Your task to perform on an android device: Clear the shopping cart on walmart.com. Image 0: 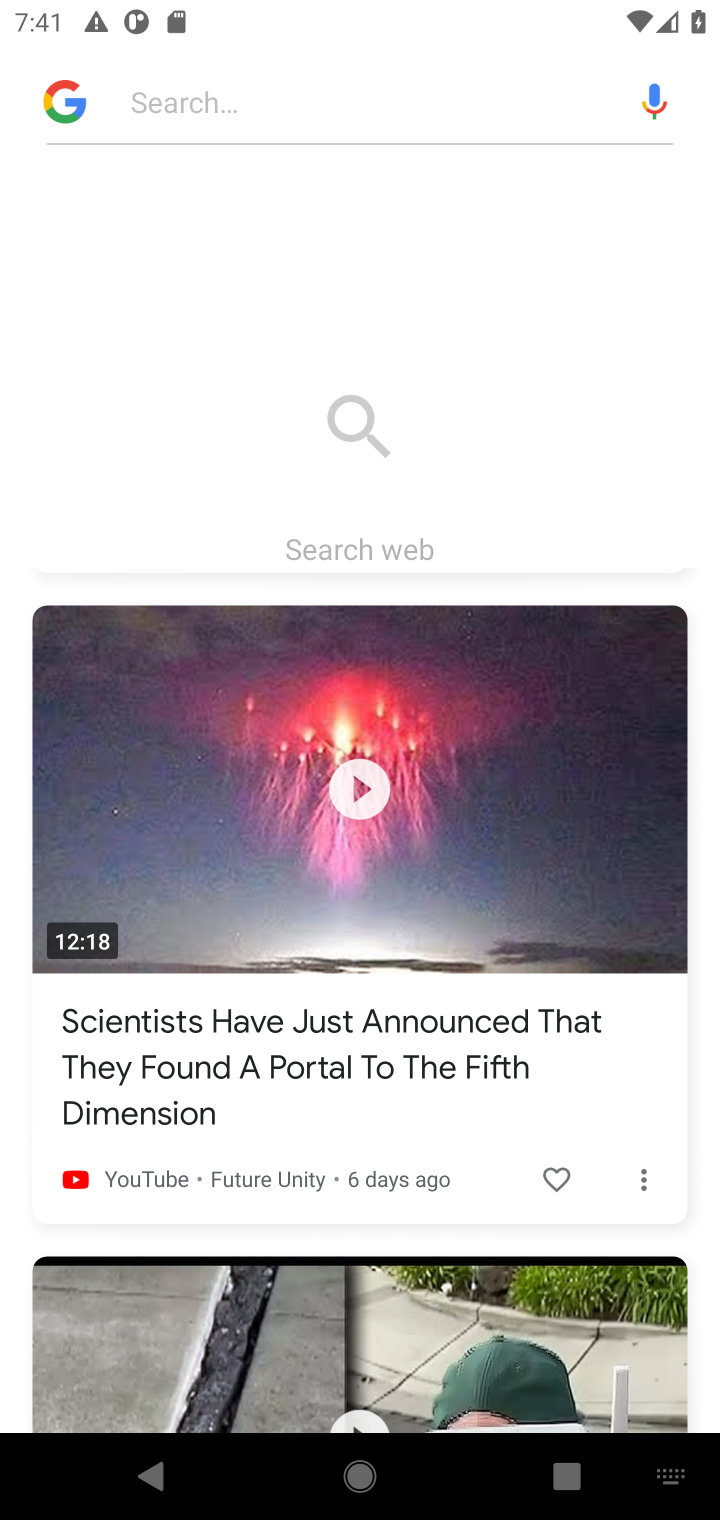
Step 0: press home button
Your task to perform on an android device: Clear the shopping cart on walmart.com. Image 1: 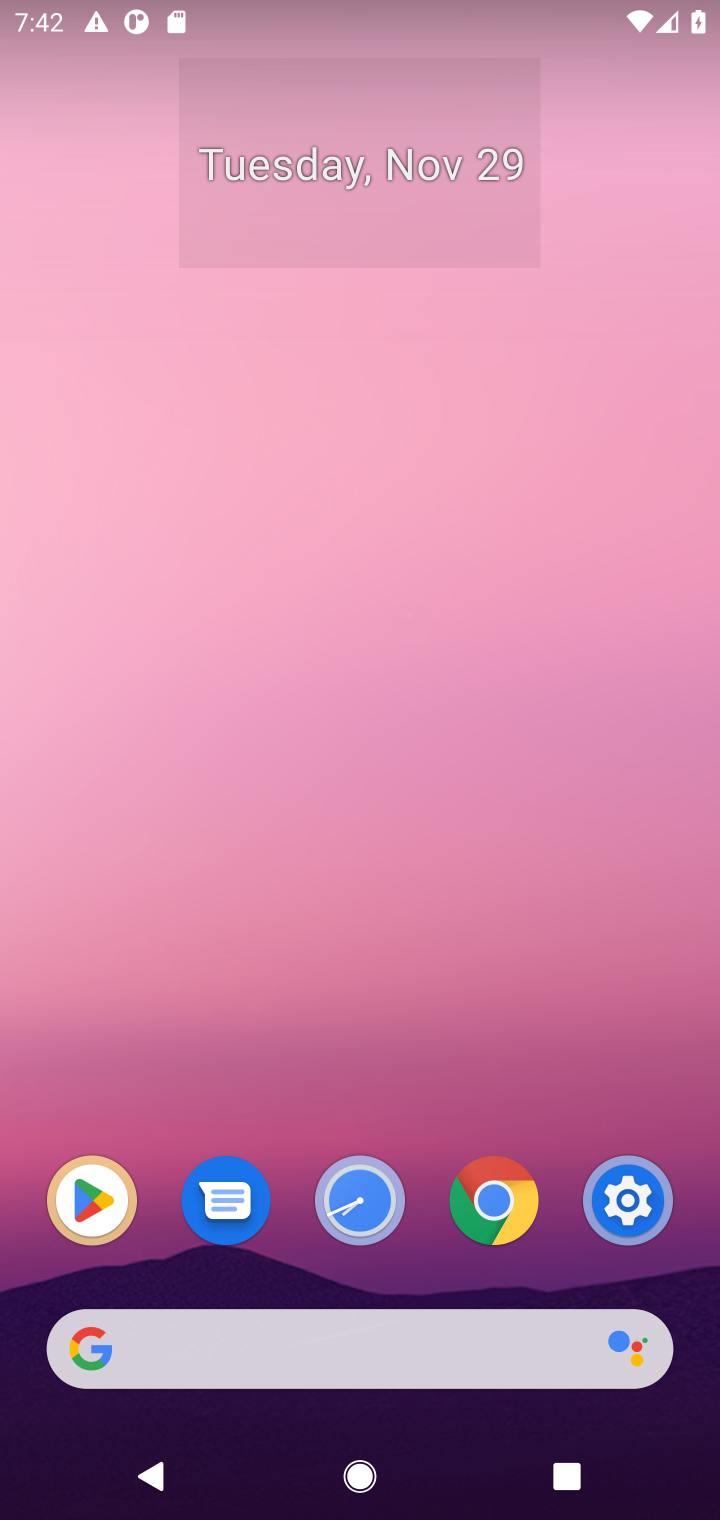
Step 1: click (264, 1334)
Your task to perform on an android device: Clear the shopping cart on walmart.com. Image 2: 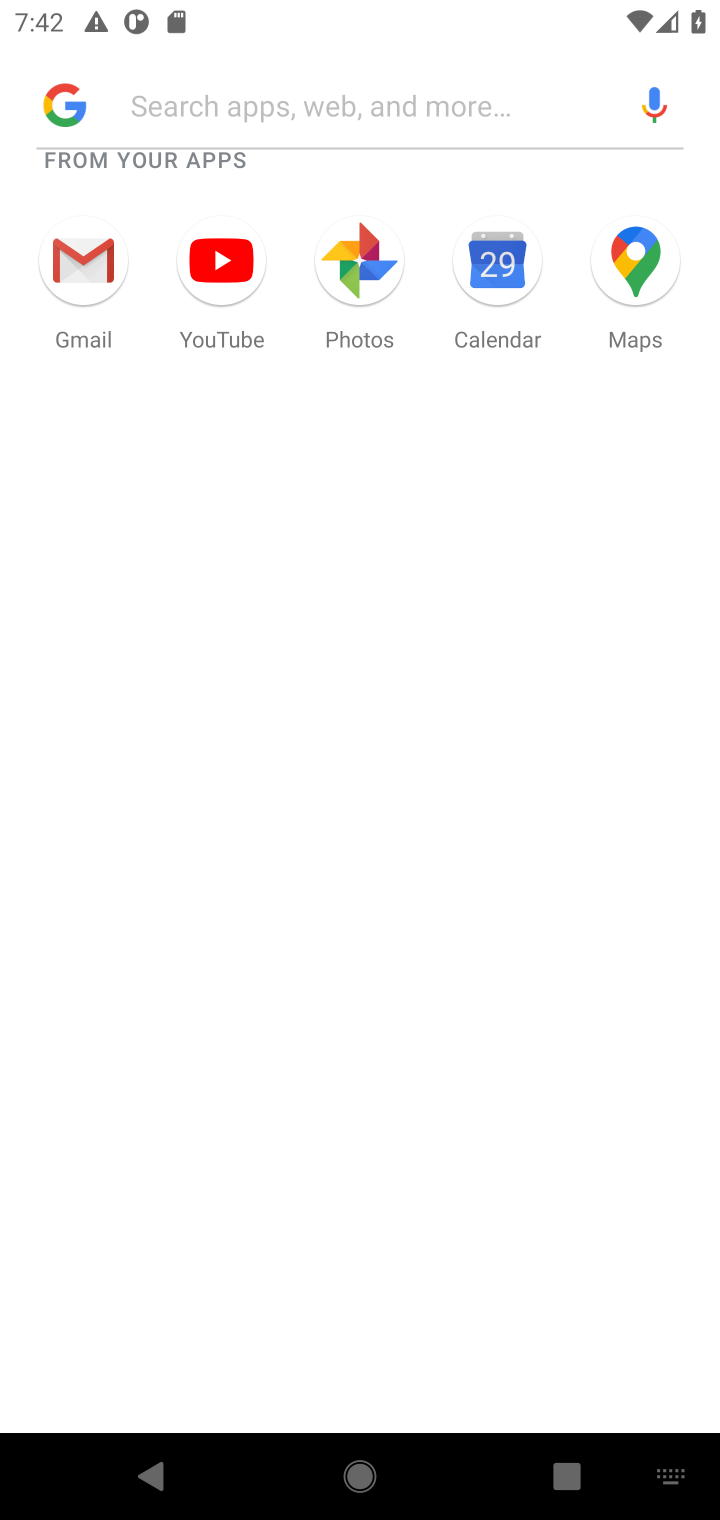
Step 2: type "walmart"
Your task to perform on an android device: Clear the shopping cart on walmart.com. Image 3: 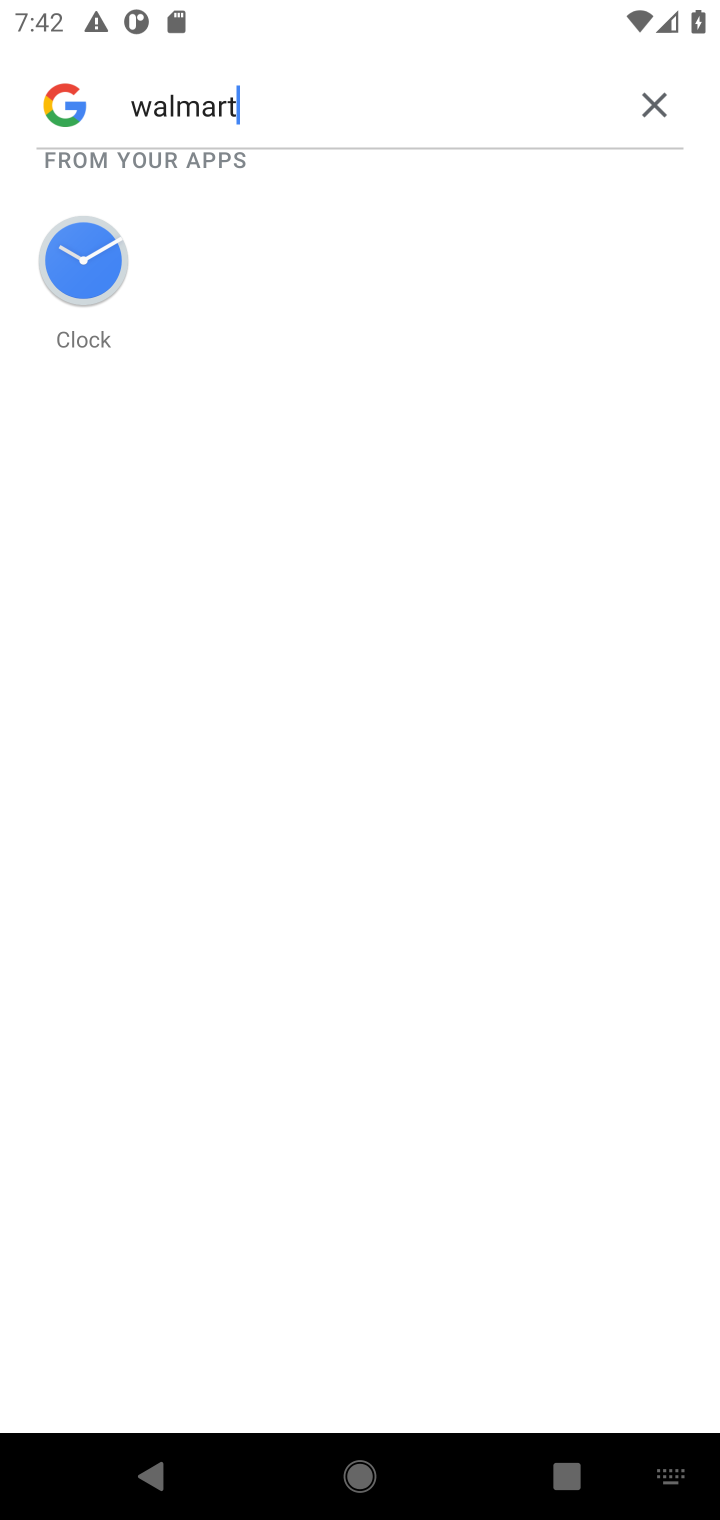
Step 3: click (650, 112)
Your task to perform on an android device: Clear the shopping cart on walmart.com. Image 4: 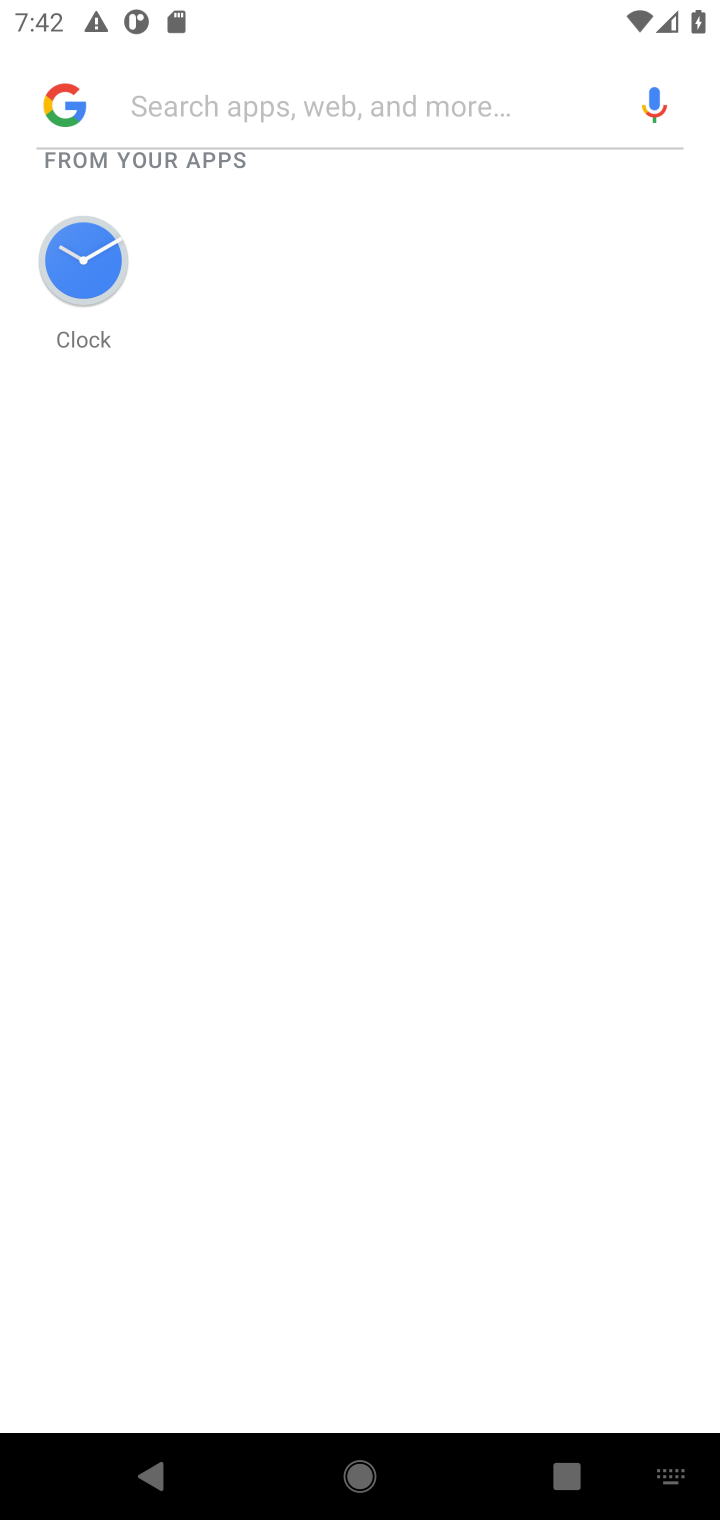
Step 4: press home button
Your task to perform on an android device: Clear the shopping cart on walmart.com. Image 5: 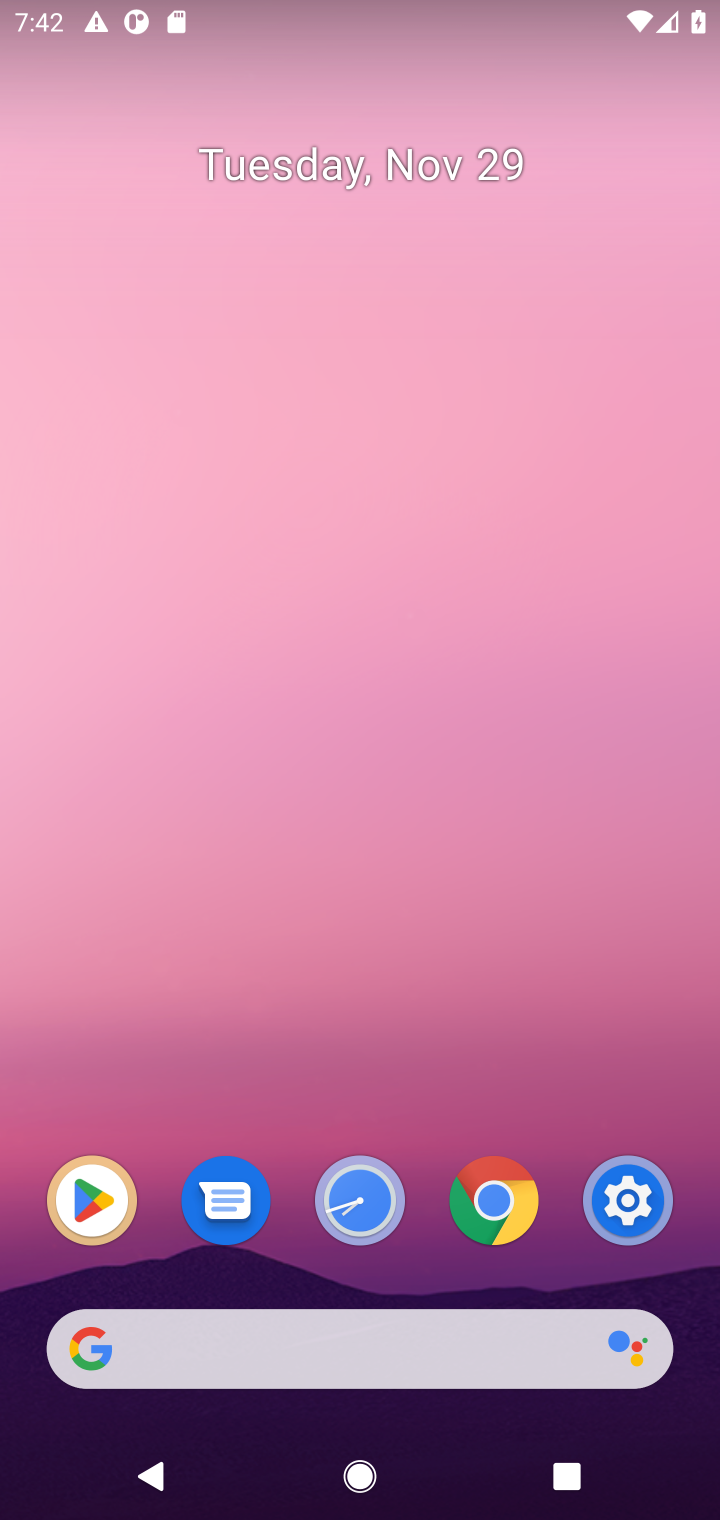
Step 5: click (239, 1316)
Your task to perform on an android device: Clear the shopping cart on walmart.com. Image 6: 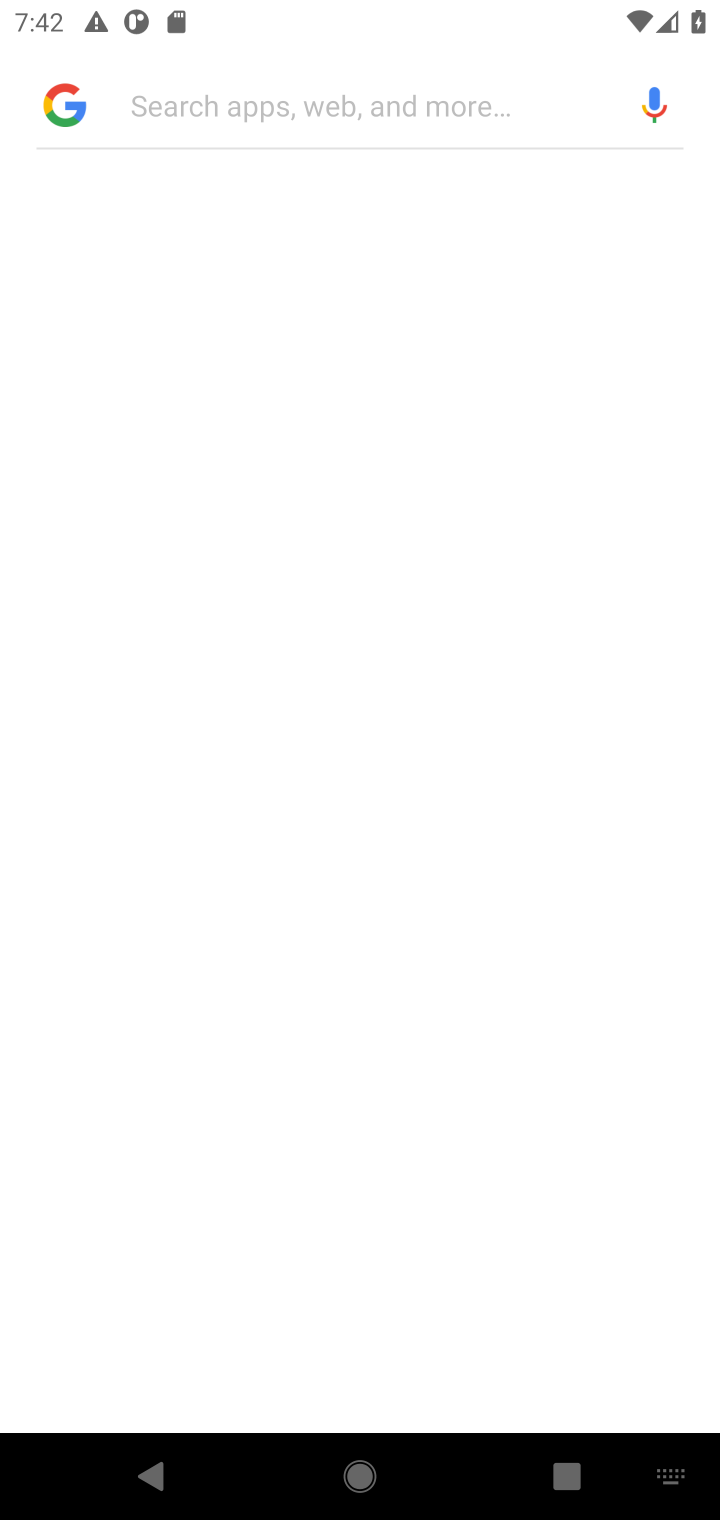
Step 6: press home button
Your task to perform on an android device: Clear the shopping cart on walmart.com. Image 7: 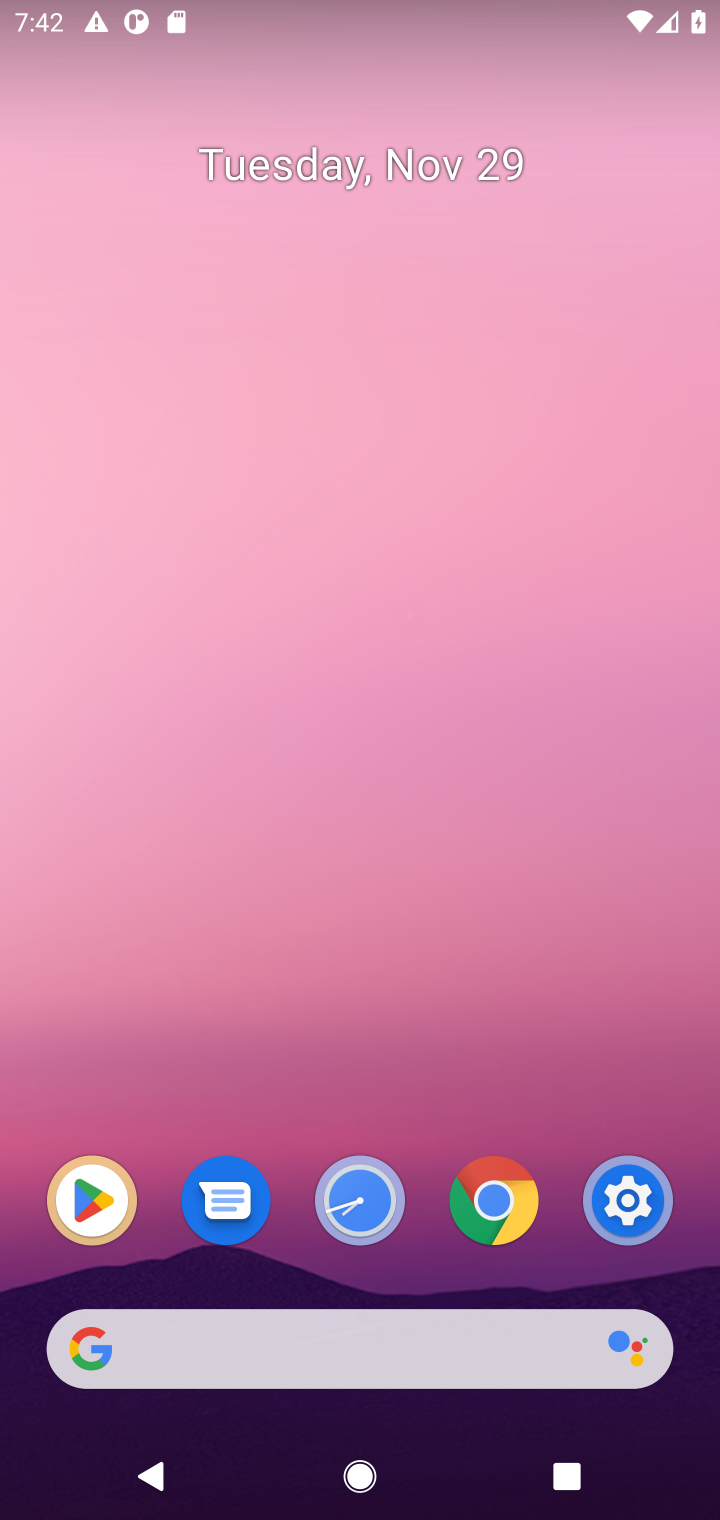
Step 7: click (504, 1233)
Your task to perform on an android device: Clear the shopping cart on walmart.com. Image 8: 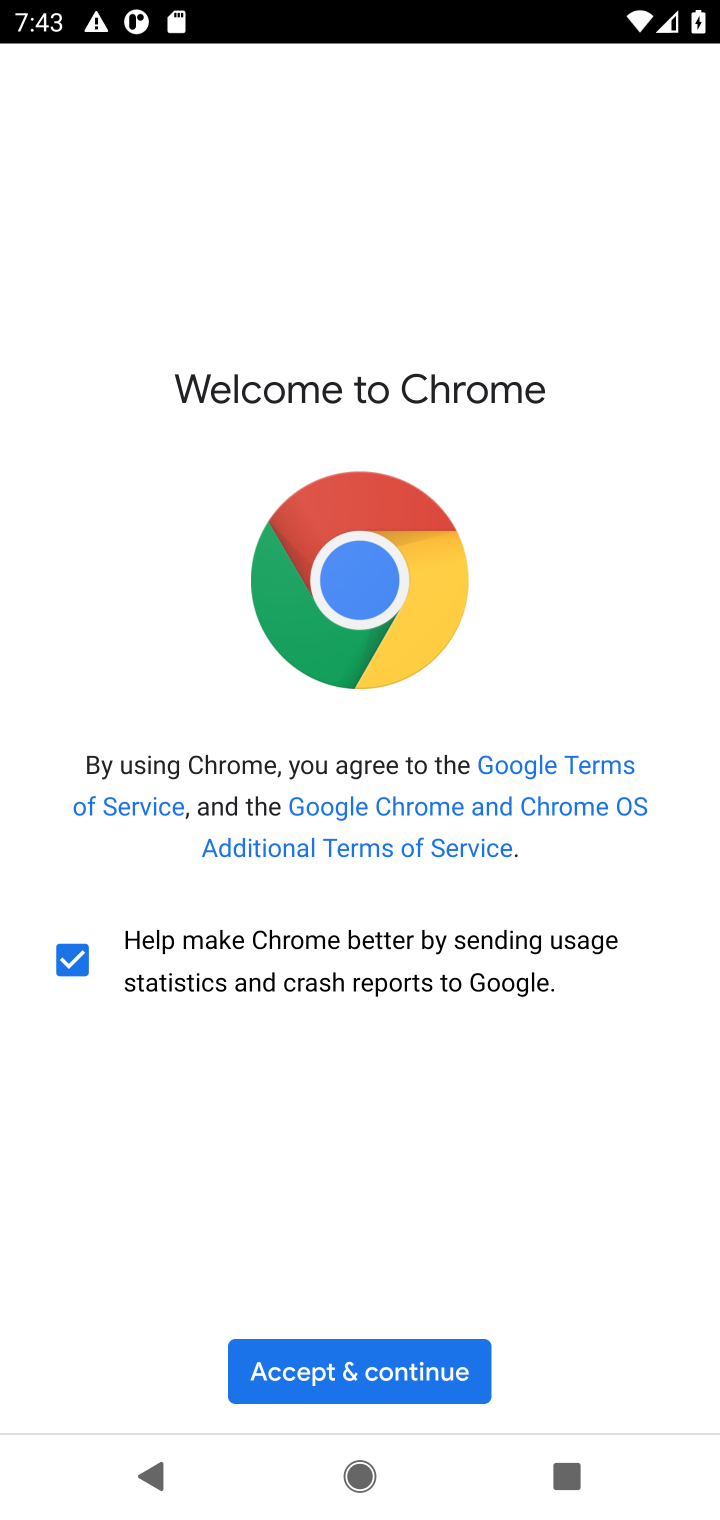
Step 8: click (328, 1386)
Your task to perform on an android device: Clear the shopping cart on walmart.com. Image 9: 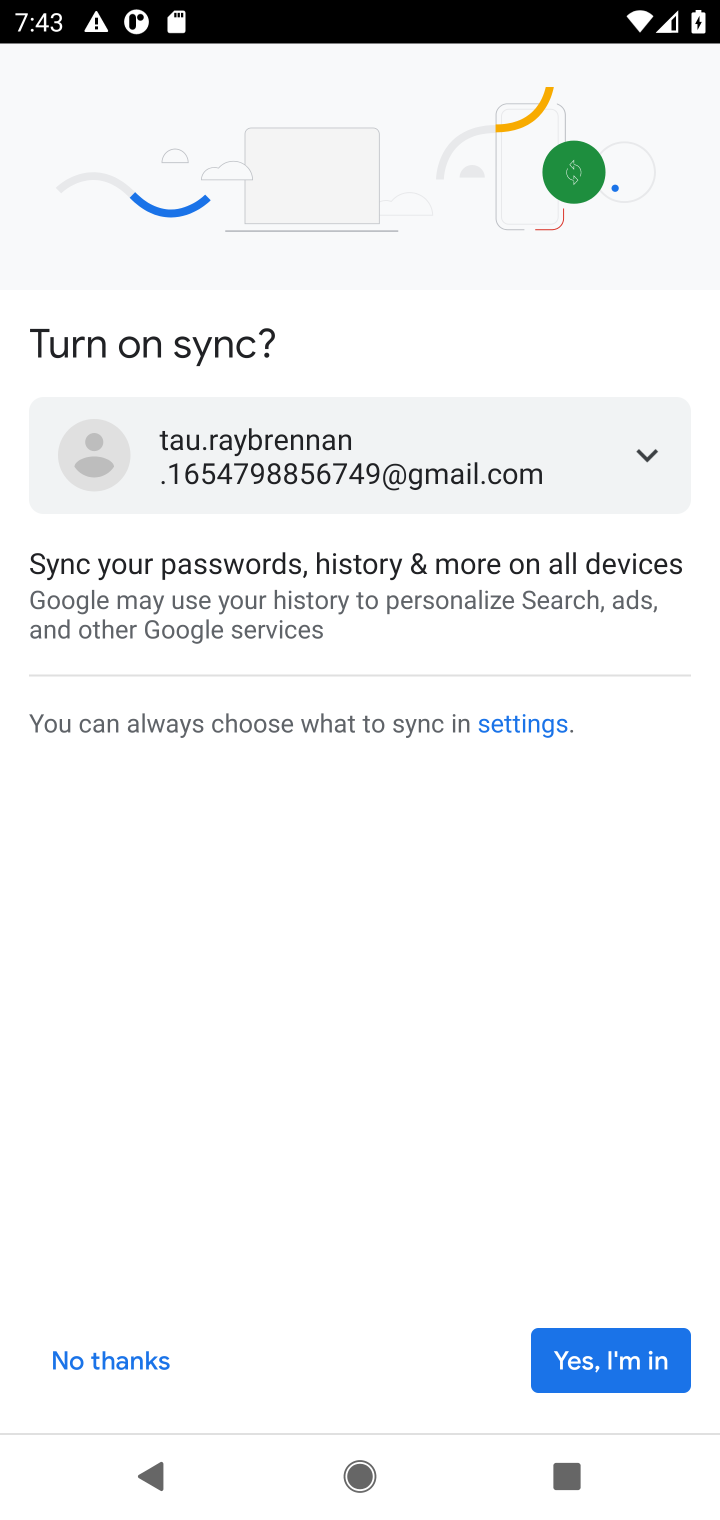
Step 9: click (544, 1356)
Your task to perform on an android device: Clear the shopping cart on walmart.com. Image 10: 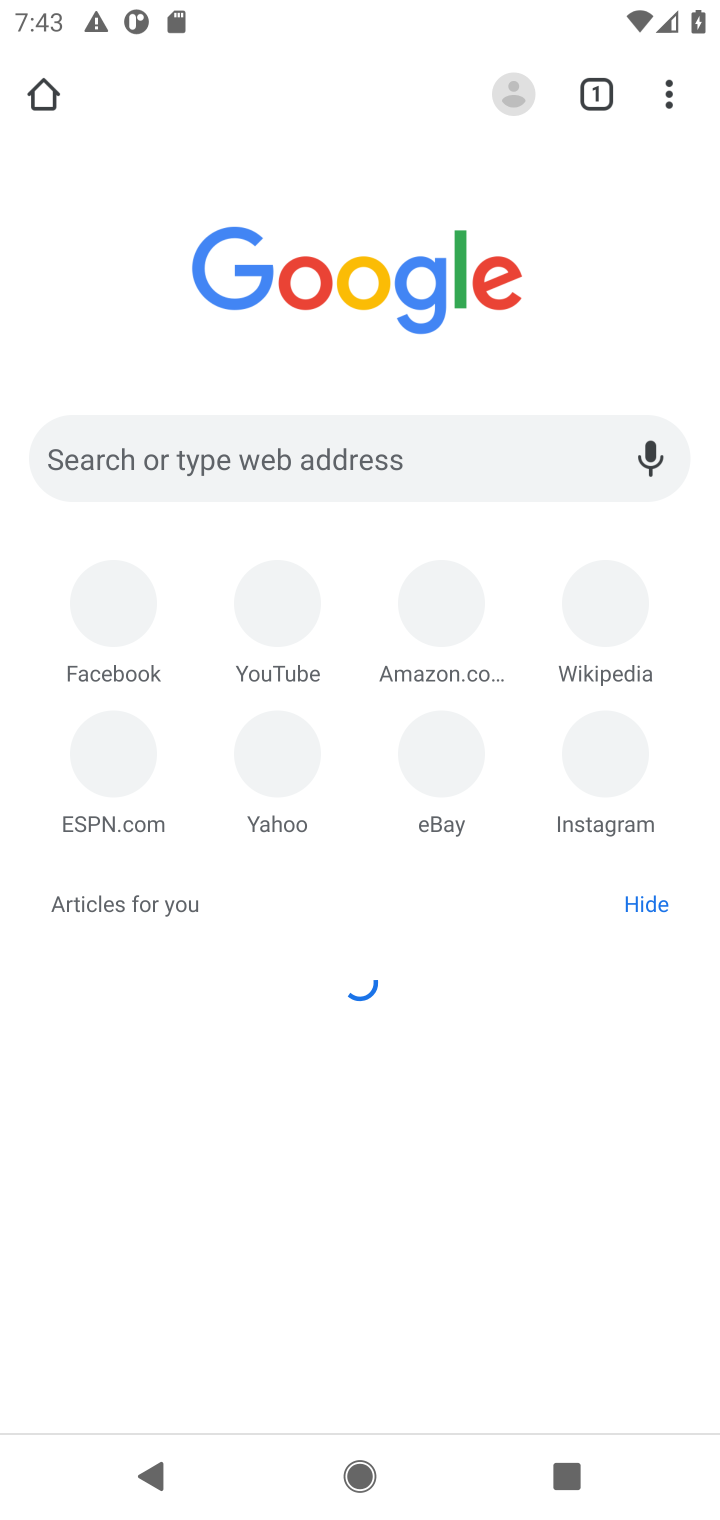
Step 10: click (312, 475)
Your task to perform on an android device: Clear the shopping cart on walmart.com. Image 11: 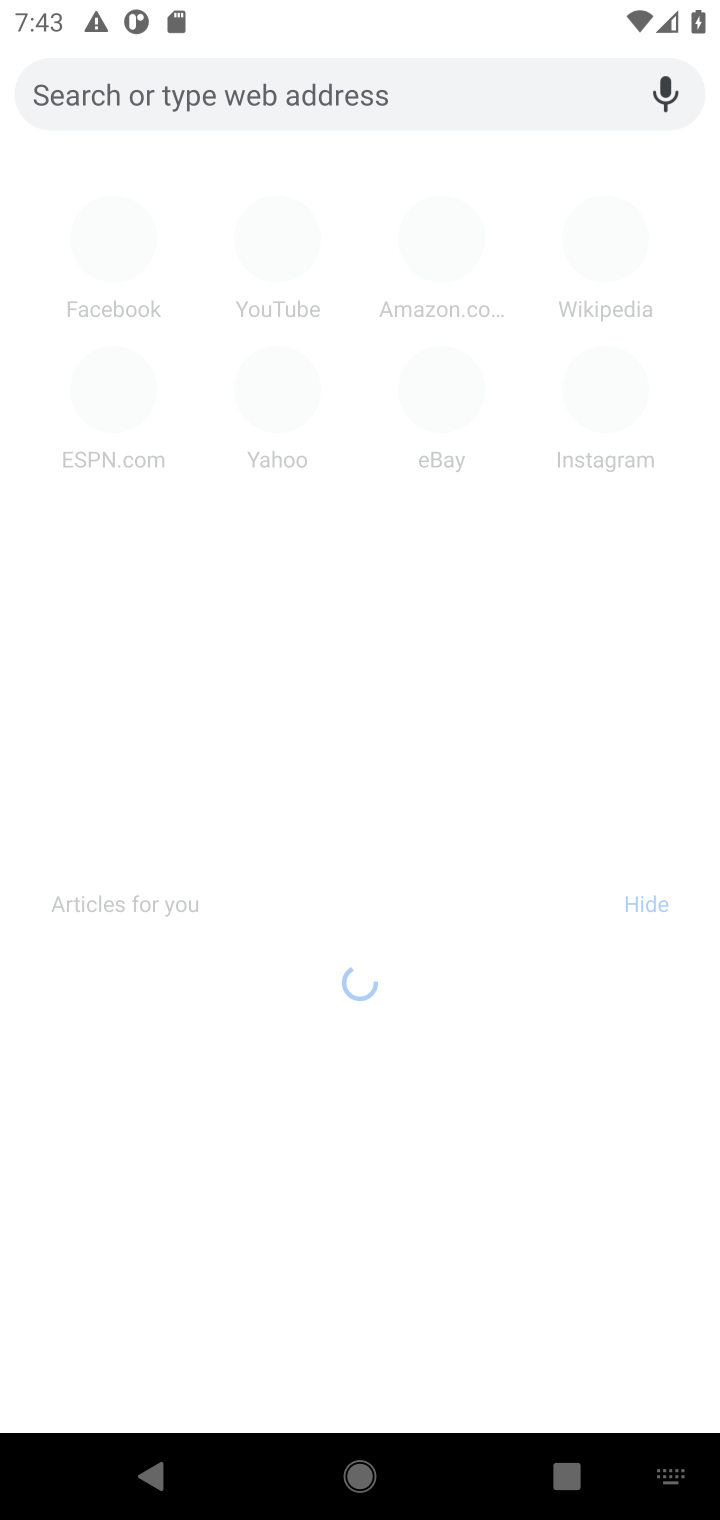
Step 11: type "walmart"
Your task to perform on an android device: Clear the shopping cart on walmart.com. Image 12: 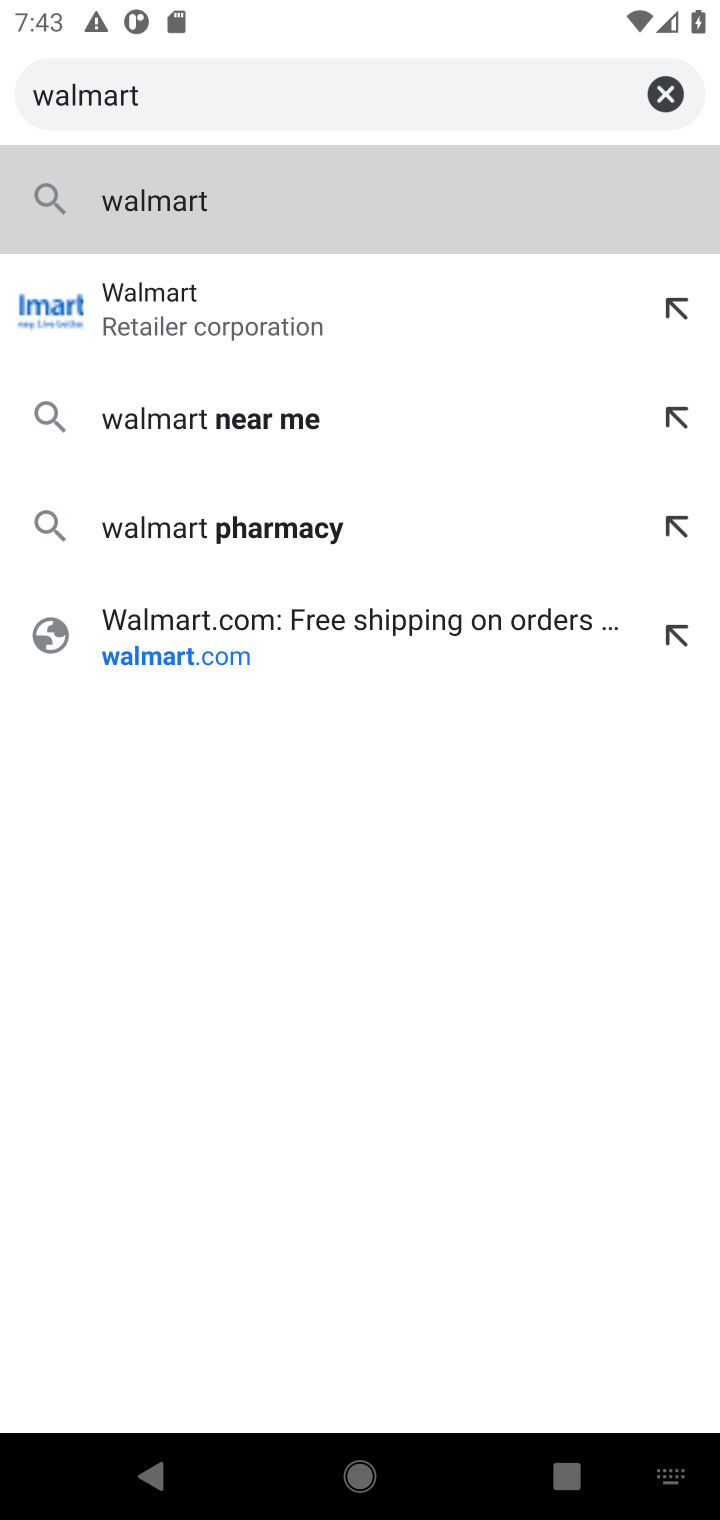
Step 12: click (382, 223)
Your task to perform on an android device: Clear the shopping cart on walmart.com. Image 13: 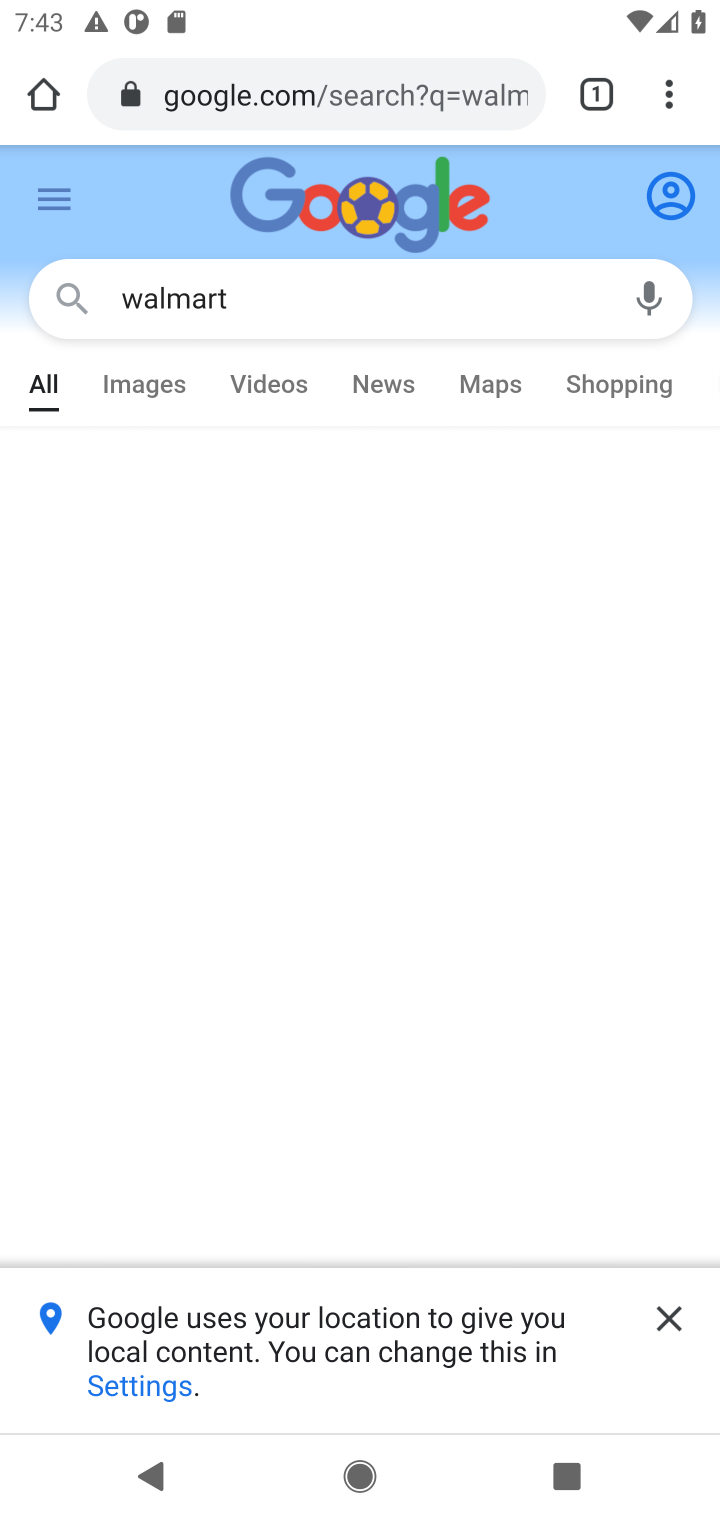
Step 13: click (676, 1339)
Your task to perform on an android device: Clear the shopping cart on walmart.com. Image 14: 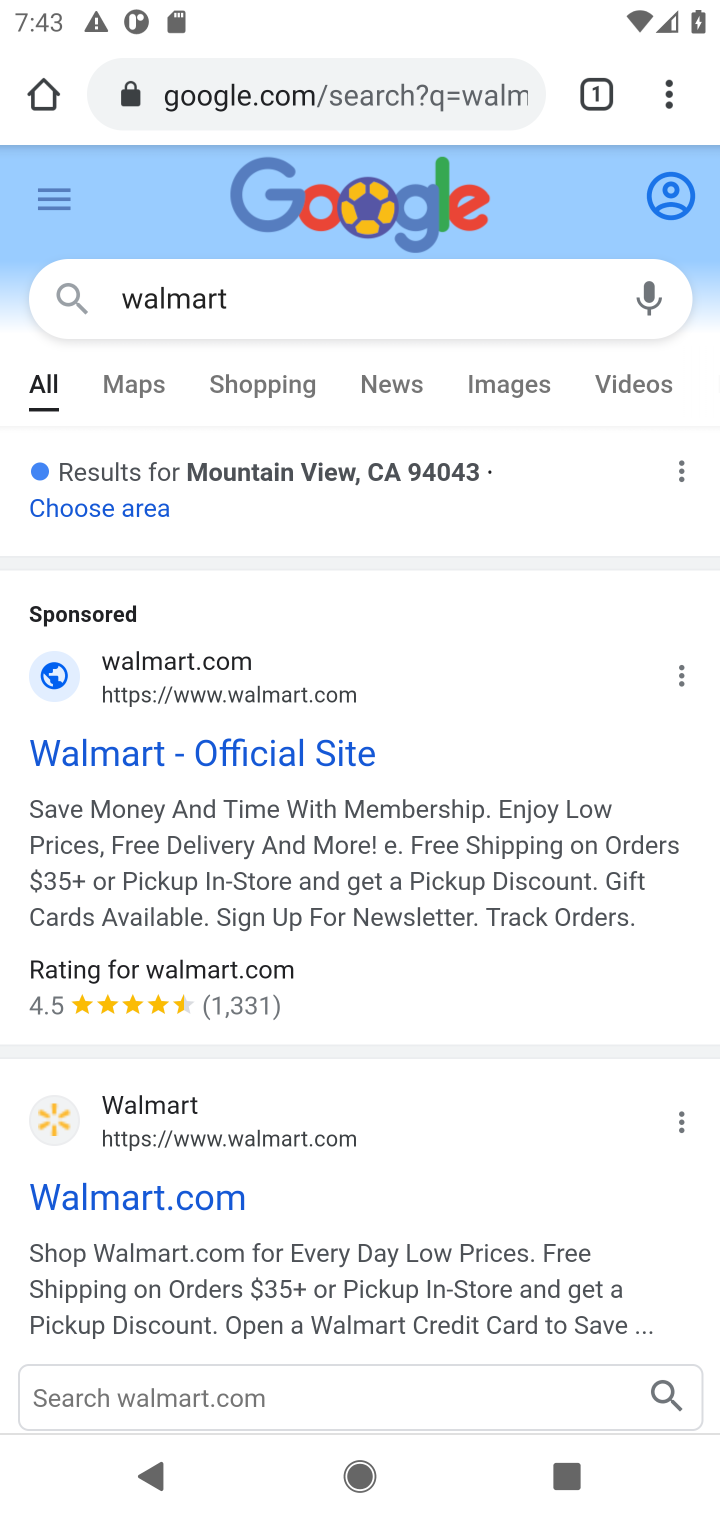
Step 14: click (248, 776)
Your task to perform on an android device: Clear the shopping cart on walmart.com. Image 15: 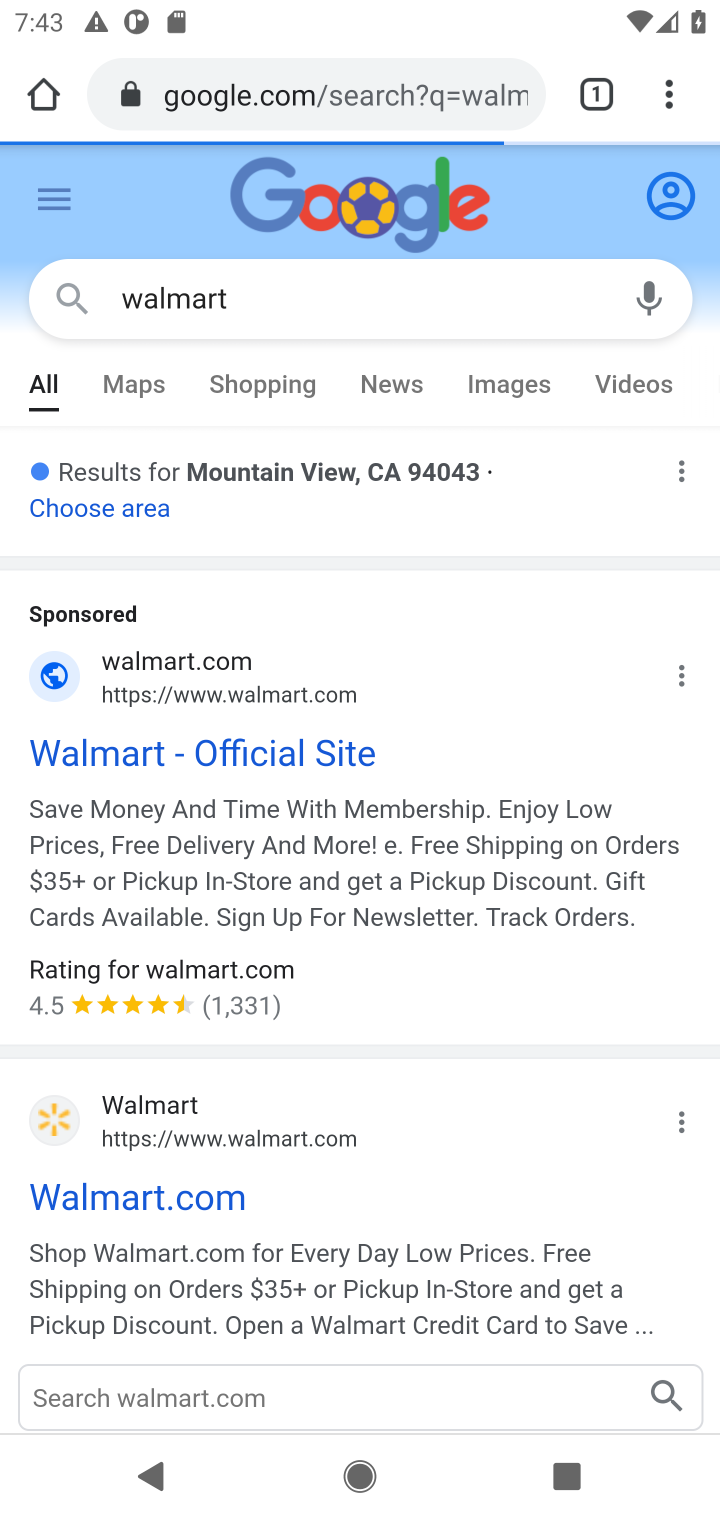
Step 15: click (295, 746)
Your task to perform on an android device: Clear the shopping cart on walmart.com. Image 16: 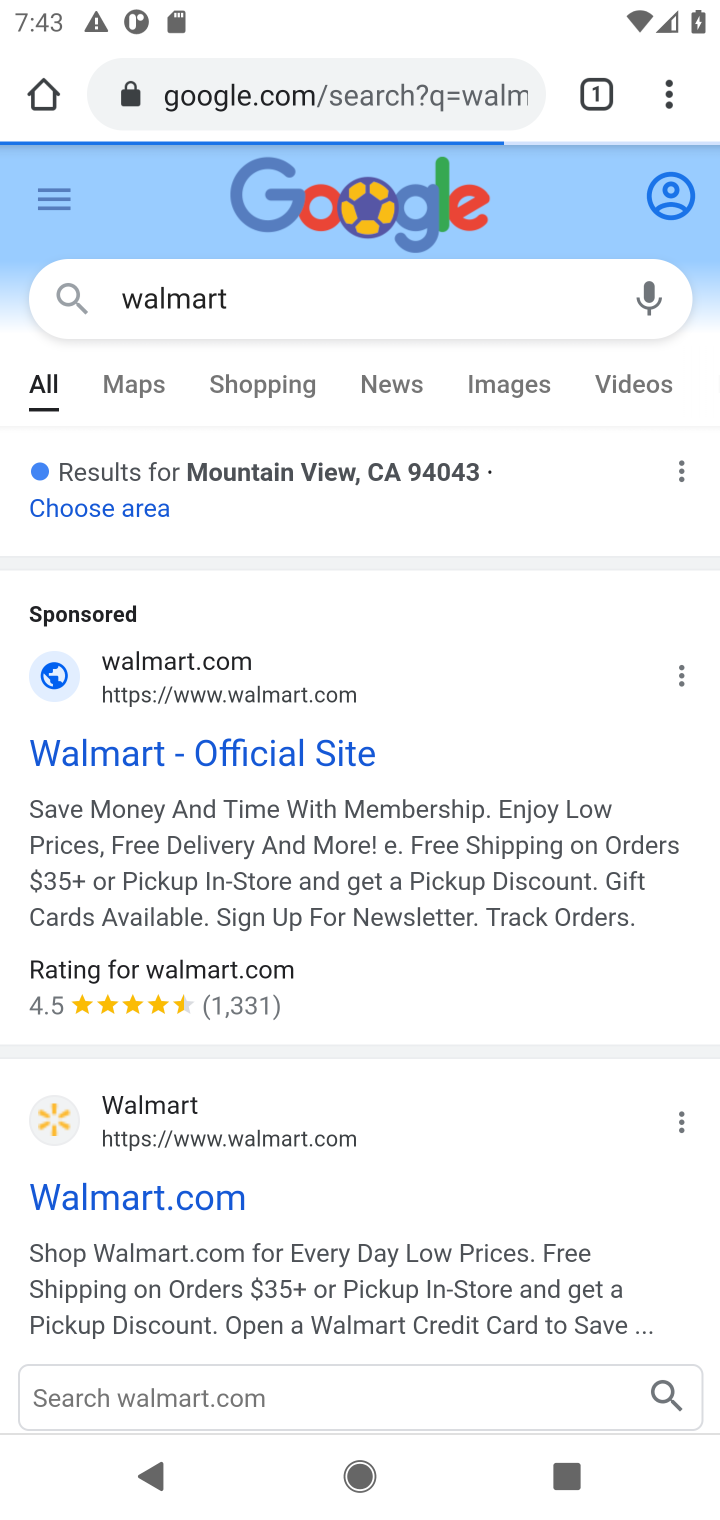
Step 16: click (254, 727)
Your task to perform on an android device: Clear the shopping cart on walmart.com. Image 17: 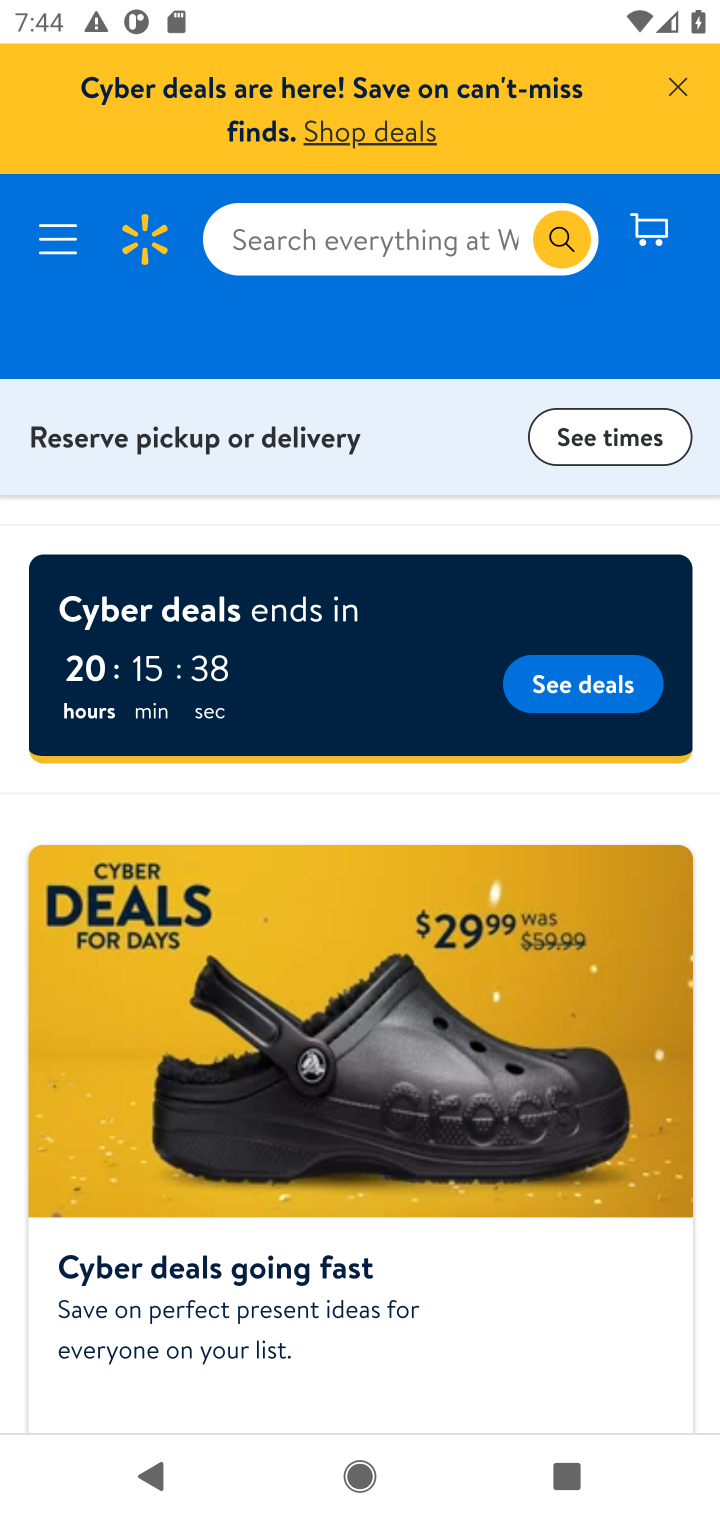
Step 17: click (346, 217)
Your task to perform on an android device: Clear the shopping cart on walmart.com. Image 18: 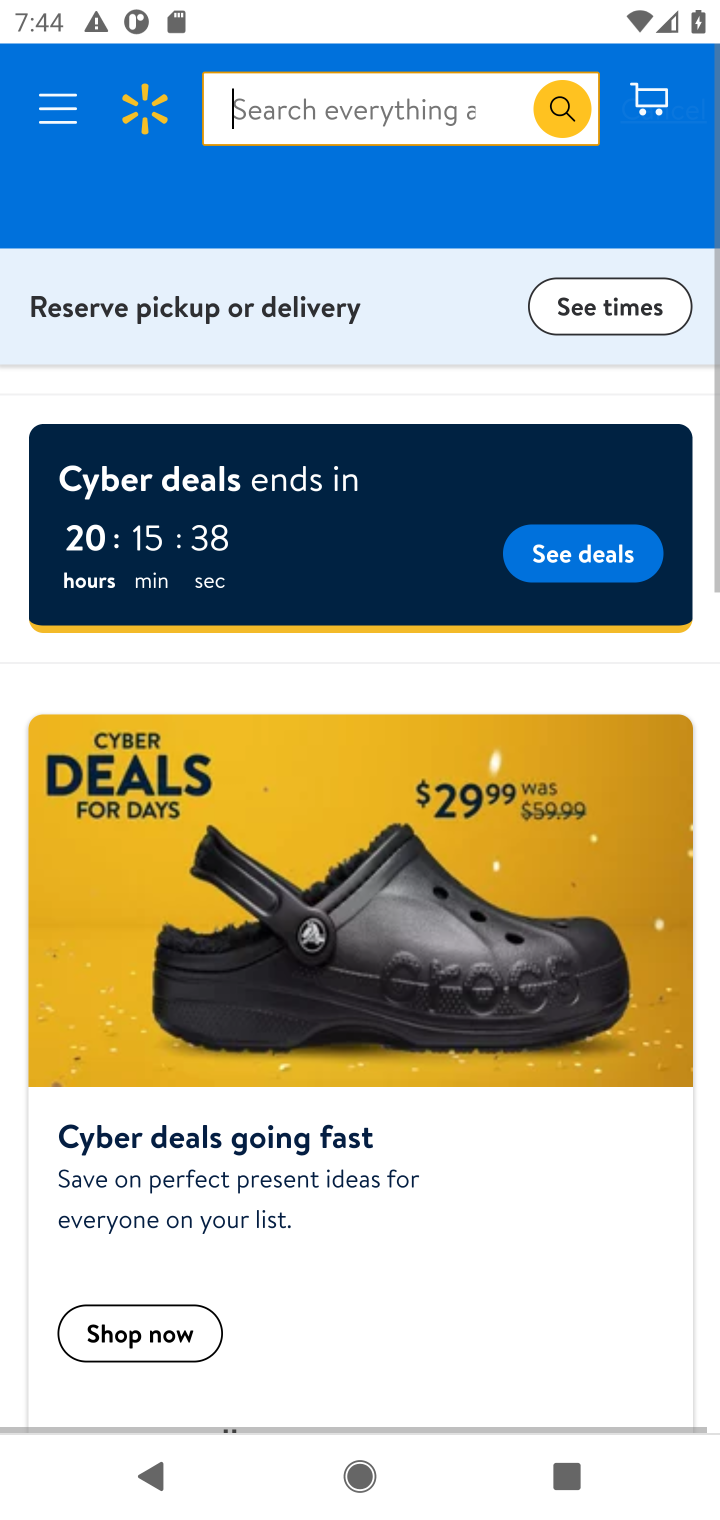
Step 18: click (665, 112)
Your task to perform on an android device: Clear the shopping cart on walmart.com. Image 19: 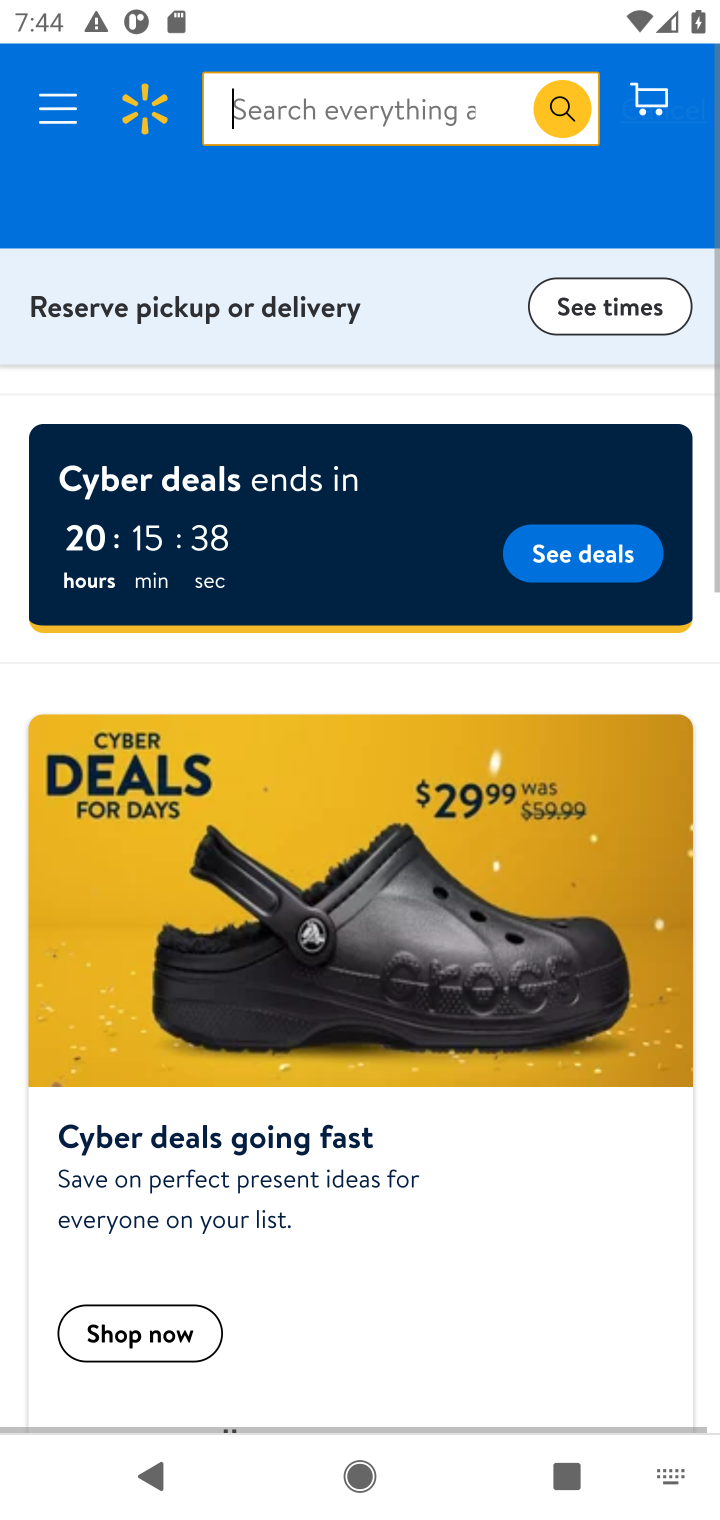
Step 19: task complete